Your task to perform on an android device: Go to calendar. Show me events next week Image 0: 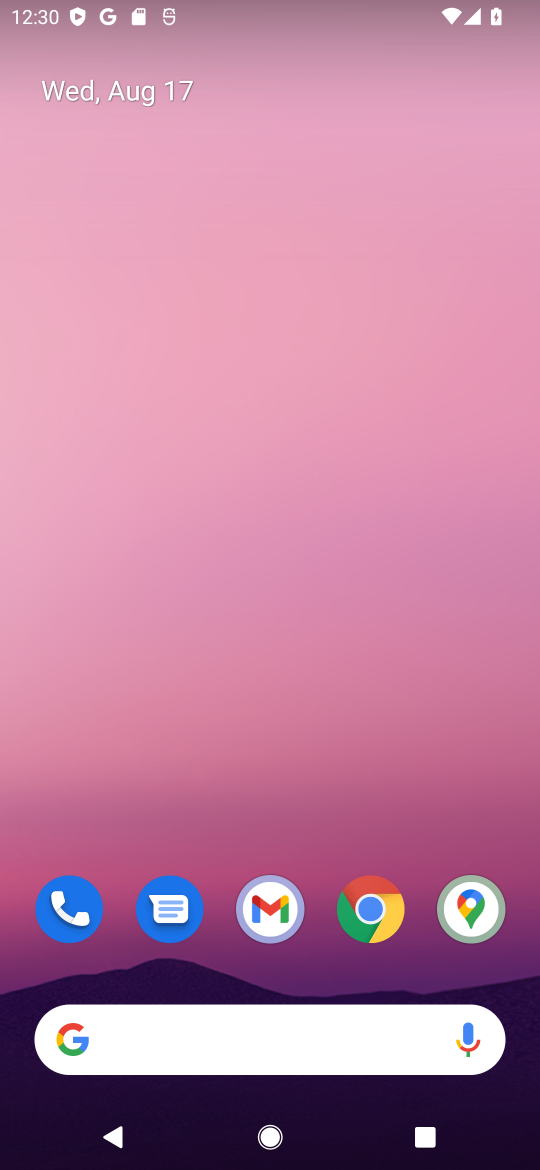
Step 0: drag from (296, 822) to (312, 125)
Your task to perform on an android device: Go to calendar. Show me events next week Image 1: 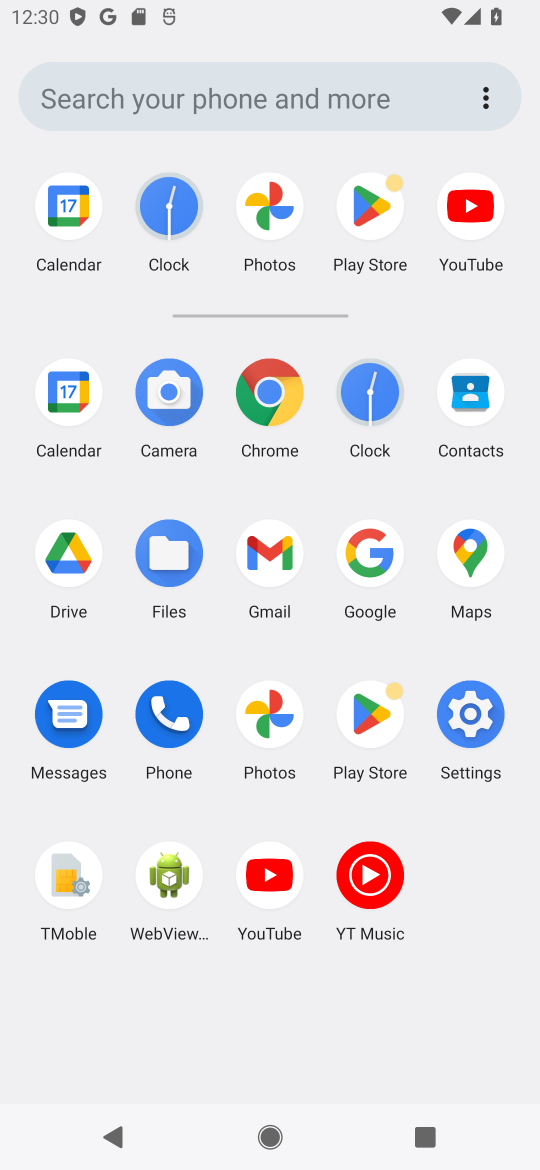
Step 1: click (68, 216)
Your task to perform on an android device: Go to calendar. Show me events next week Image 2: 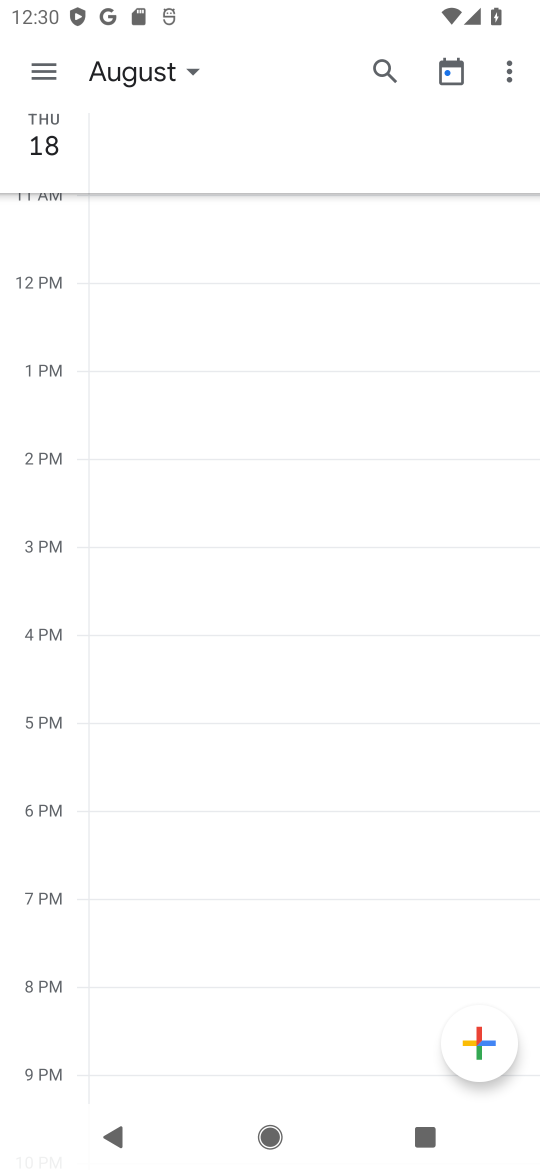
Step 2: click (38, 51)
Your task to perform on an android device: Go to calendar. Show me events next week Image 3: 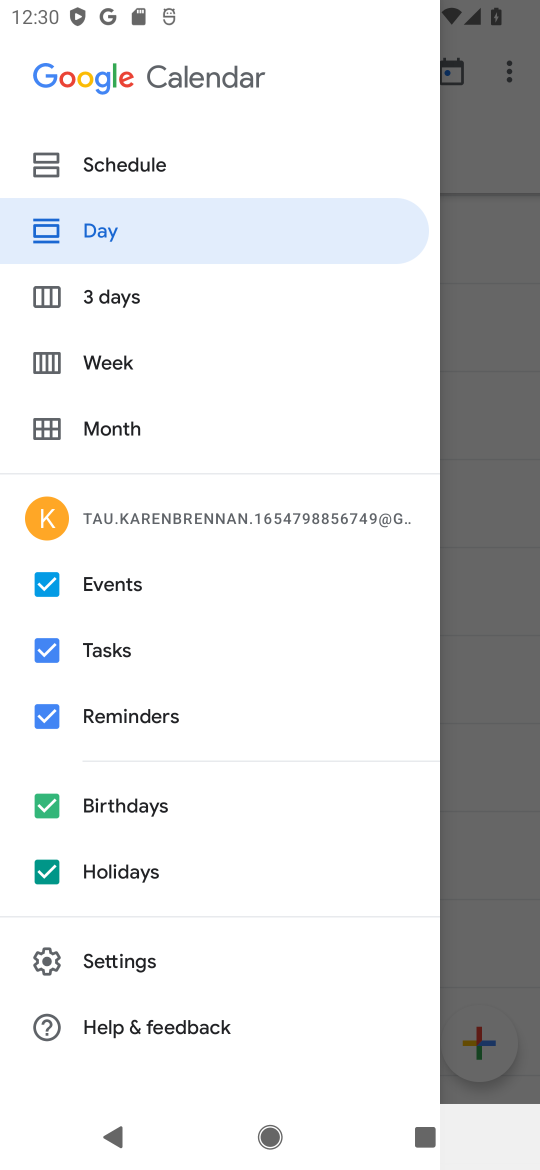
Step 3: click (114, 365)
Your task to perform on an android device: Go to calendar. Show me events next week Image 4: 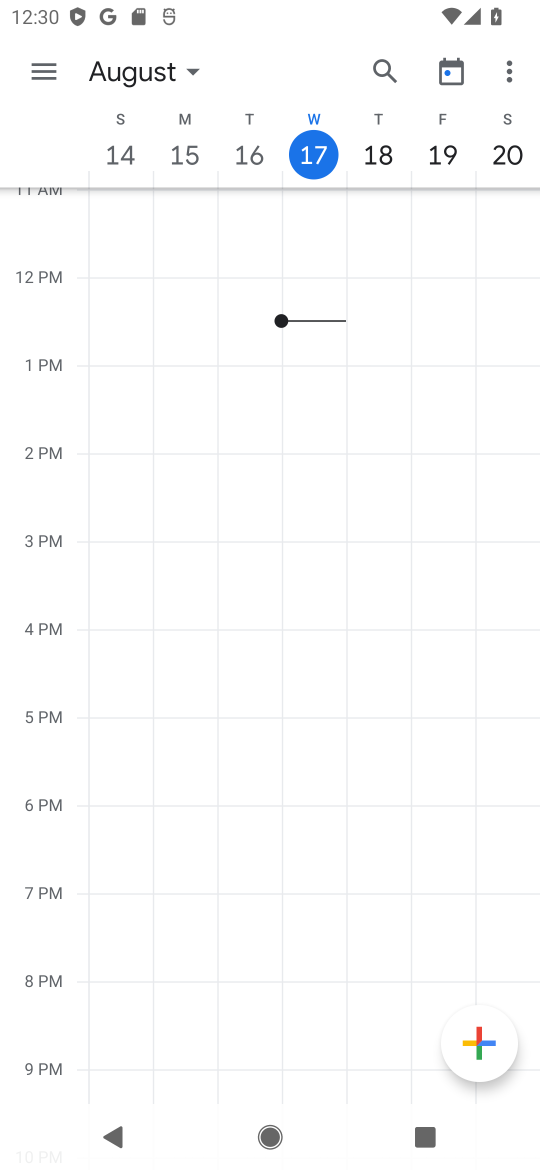
Step 4: click (182, 70)
Your task to perform on an android device: Go to calendar. Show me events next week Image 5: 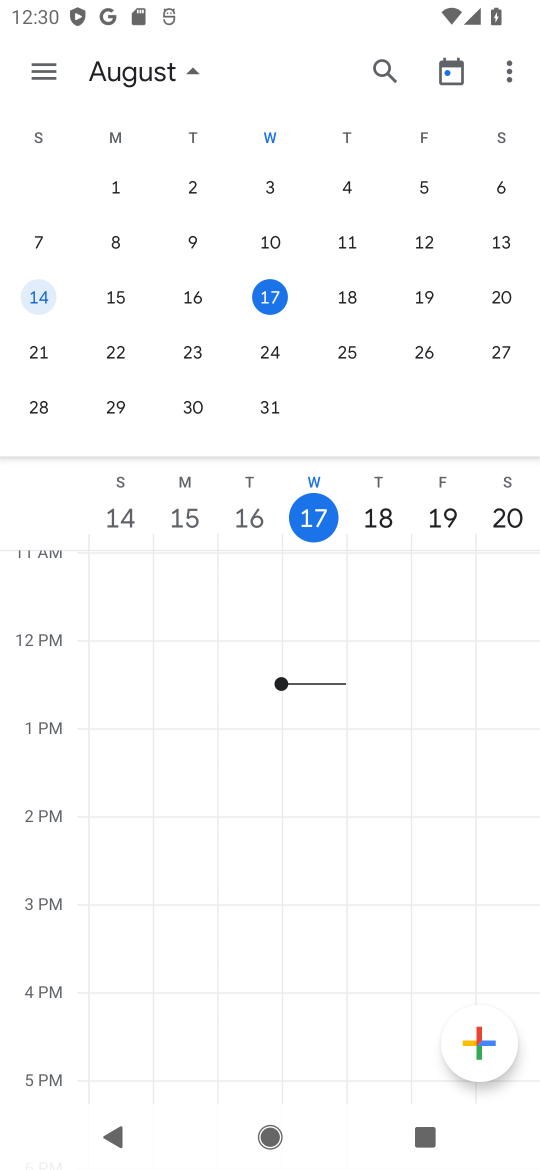
Step 5: click (259, 345)
Your task to perform on an android device: Go to calendar. Show me events next week Image 6: 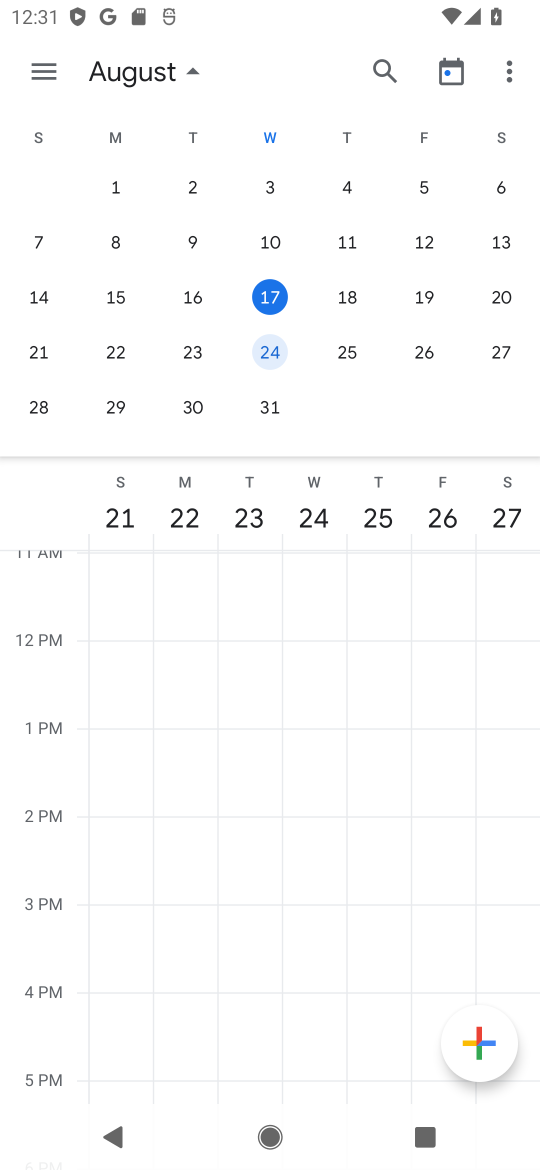
Step 6: task complete